Your task to perform on an android device: Open Google Chrome and open the bookmarks view Image 0: 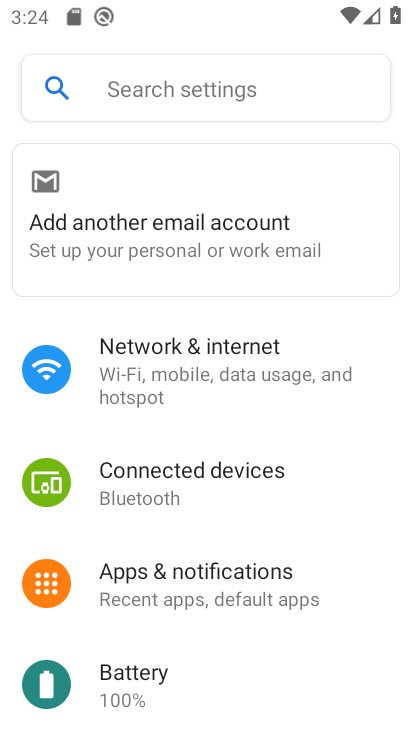
Step 0: press home button
Your task to perform on an android device: Open Google Chrome and open the bookmarks view Image 1: 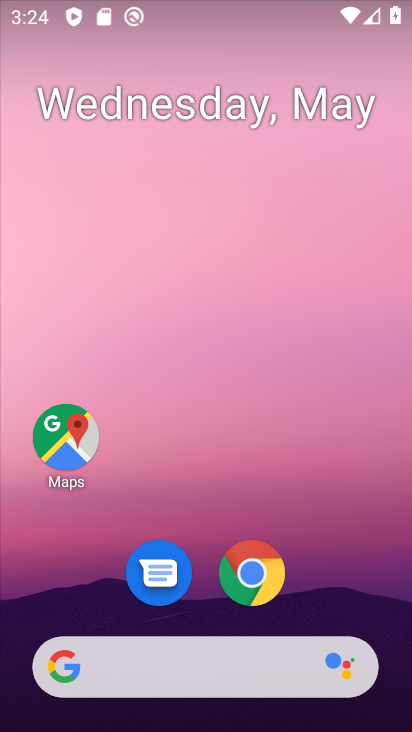
Step 1: drag from (83, 599) to (192, 259)
Your task to perform on an android device: Open Google Chrome and open the bookmarks view Image 2: 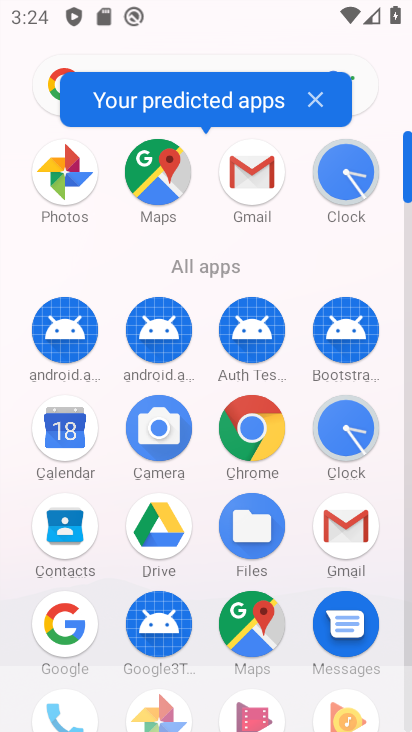
Step 2: click (263, 430)
Your task to perform on an android device: Open Google Chrome and open the bookmarks view Image 3: 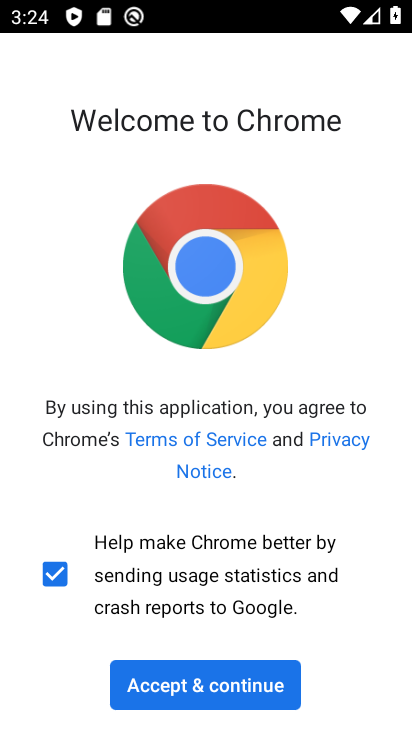
Step 3: click (260, 686)
Your task to perform on an android device: Open Google Chrome and open the bookmarks view Image 4: 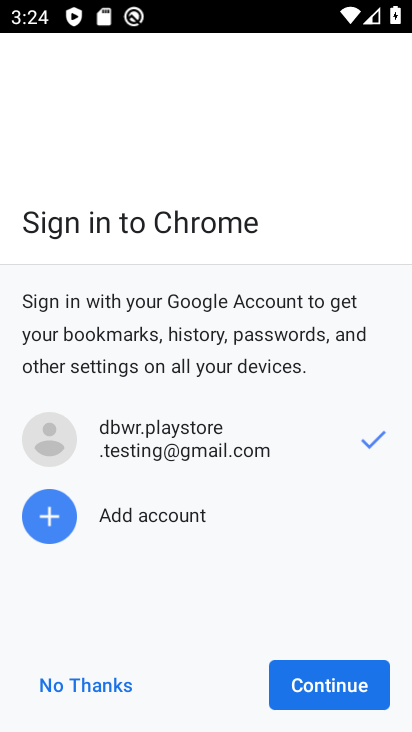
Step 4: click (345, 688)
Your task to perform on an android device: Open Google Chrome and open the bookmarks view Image 5: 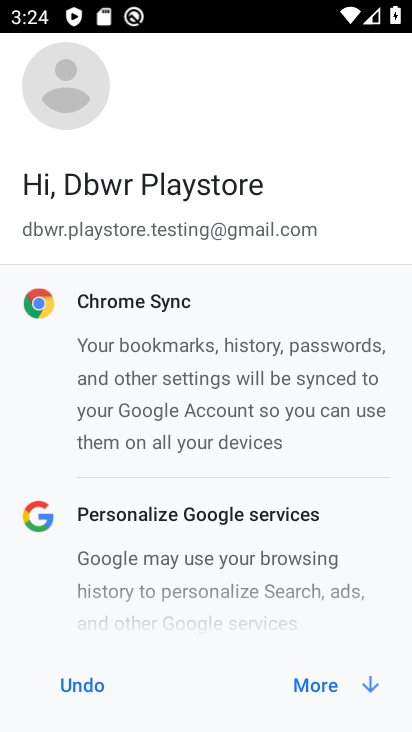
Step 5: click (338, 688)
Your task to perform on an android device: Open Google Chrome and open the bookmarks view Image 6: 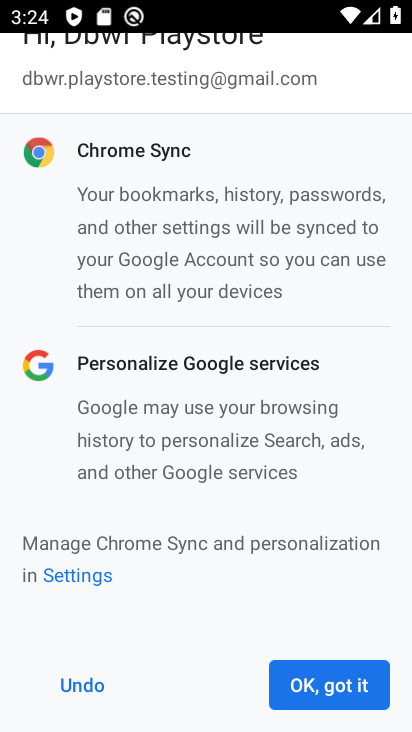
Step 6: click (338, 688)
Your task to perform on an android device: Open Google Chrome and open the bookmarks view Image 7: 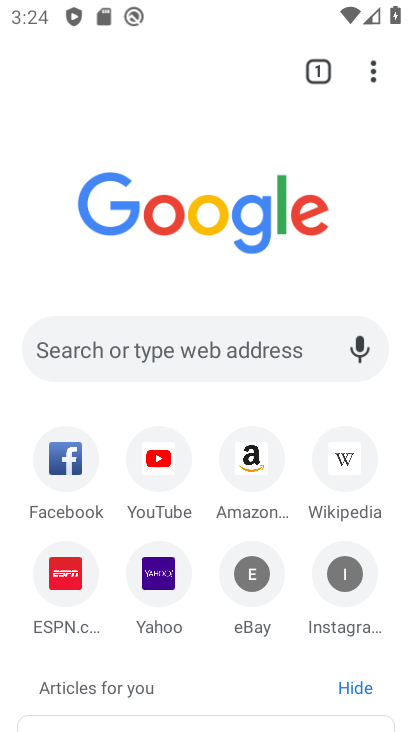
Step 7: task complete